Your task to perform on an android device: set the stopwatch Image 0: 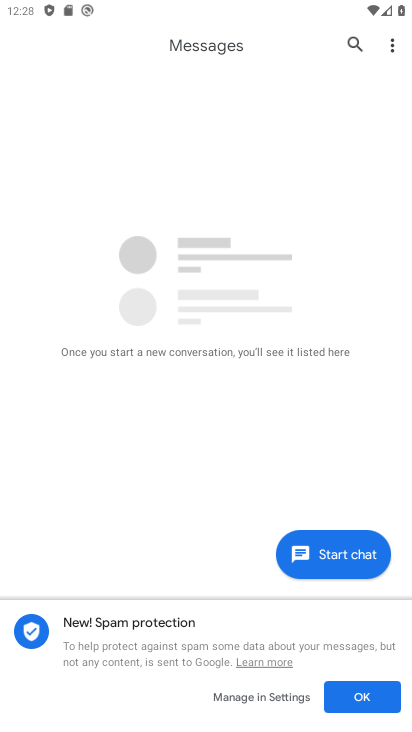
Step 0: press back button
Your task to perform on an android device: set the stopwatch Image 1: 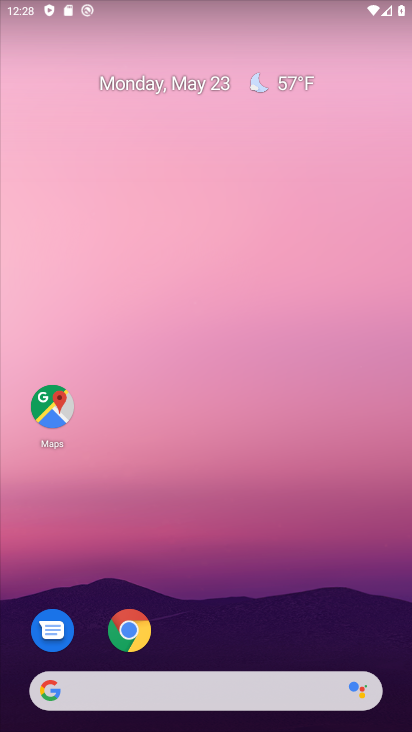
Step 1: drag from (223, 567) to (212, 27)
Your task to perform on an android device: set the stopwatch Image 2: 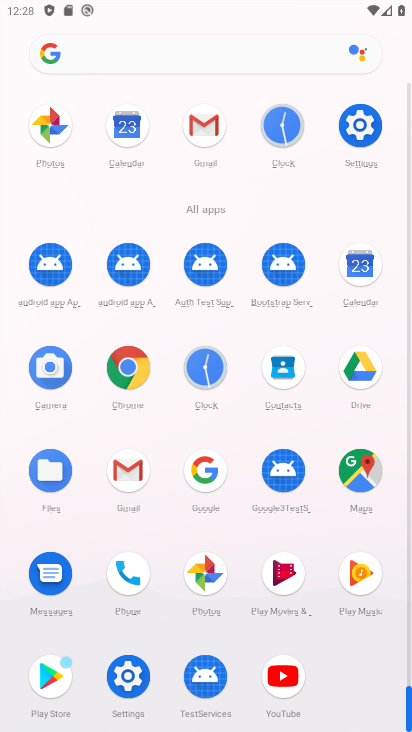
Step 2: click (283, 121)
Your task to perform on an android device: set the stopwatch Image 3: 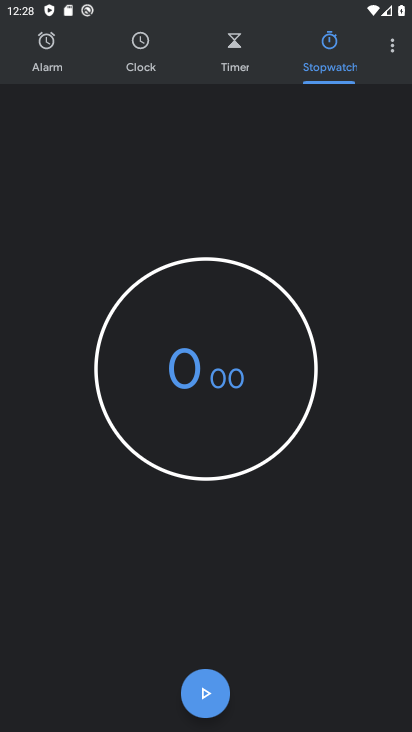
Step 3: click (211, 685)
Your task to perform on an android device: set the stopwatch Image 4: 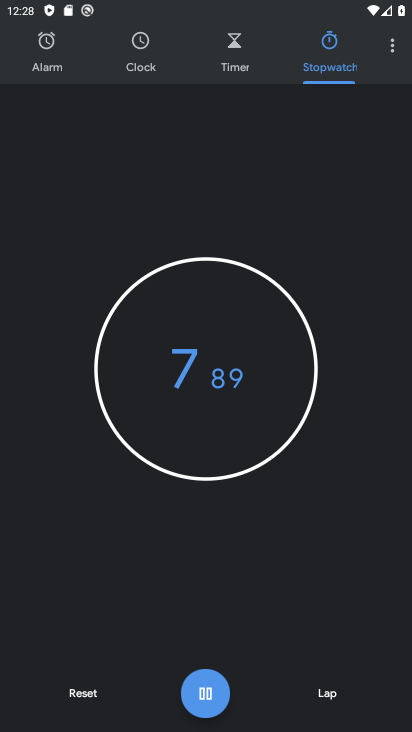
Step 4: task complete